Your task to perform on an android device: Open Google Maps Image 0: 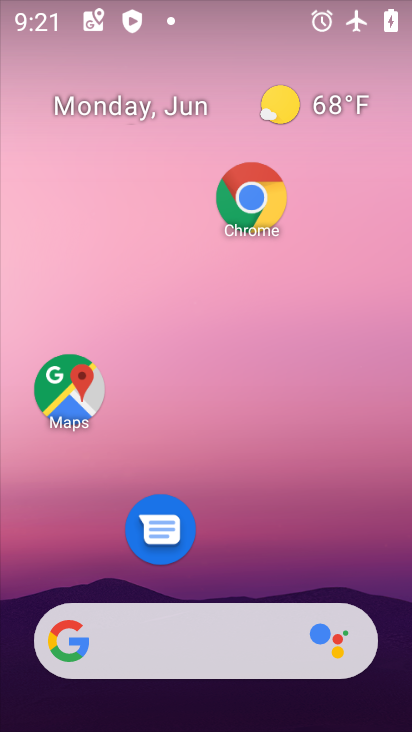
Step 0: click (75, 403)
Your task to perform on an android device: Open Google Maps Image 1: 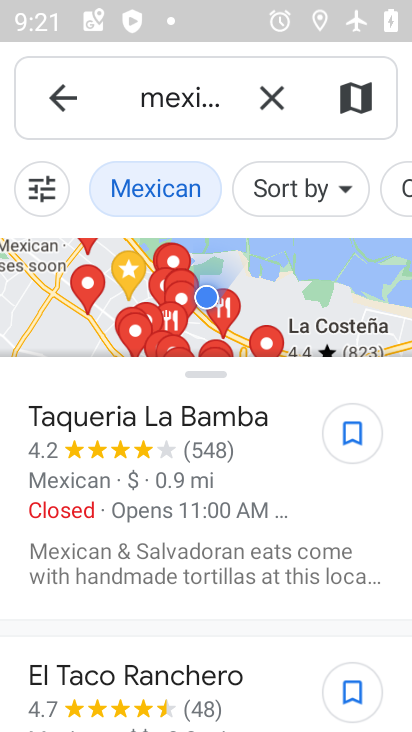
Step 1: task complete